Your task to perform on an android device: turn on sleep mode Image 0: 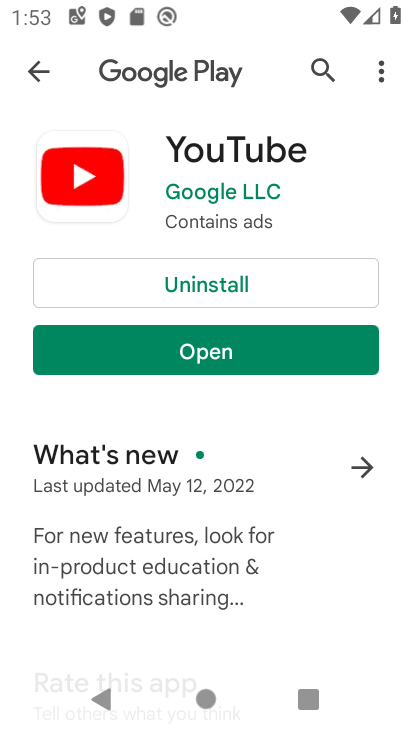
Step 0: press home button
Your task to perform on an android device: turn on sleep mode Image 1: 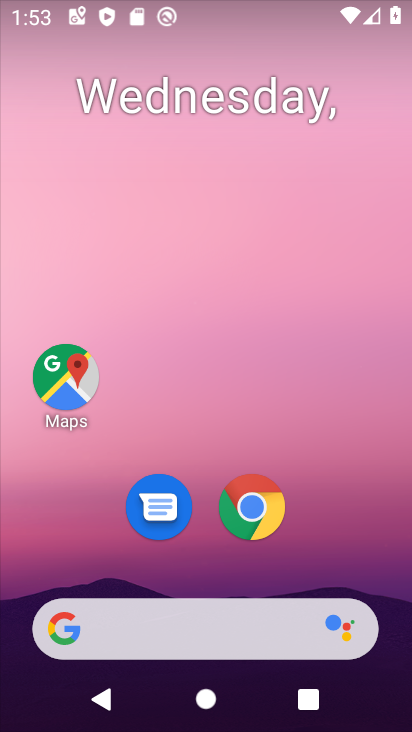
Step 1: drag from (404, 533) to (349, 193)
Your task to perform on an android device: turn on sleep mode Image 2: 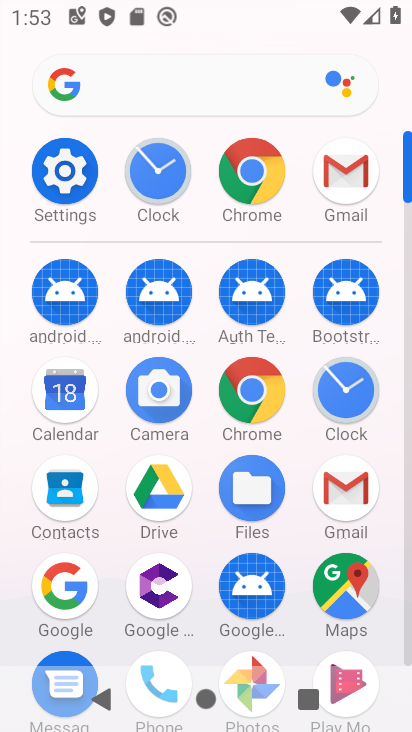
Step 2: click (73, 197)
Your task to perform on an android device: turn on sleep mode Image 3: 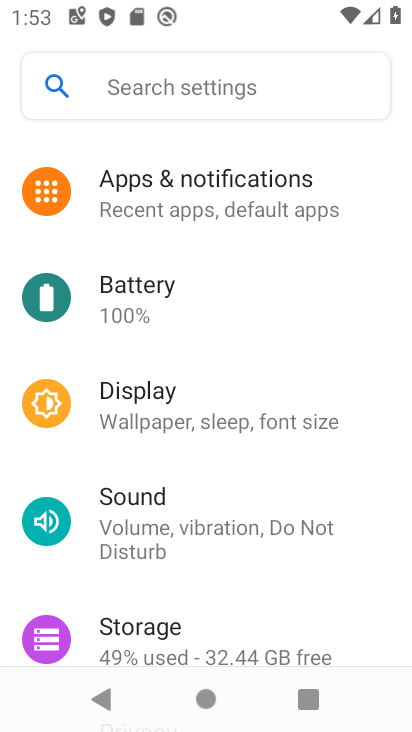
Step 3: click (211, 95)
Your task to perform on an android device: turn on sleep mode Image 4: 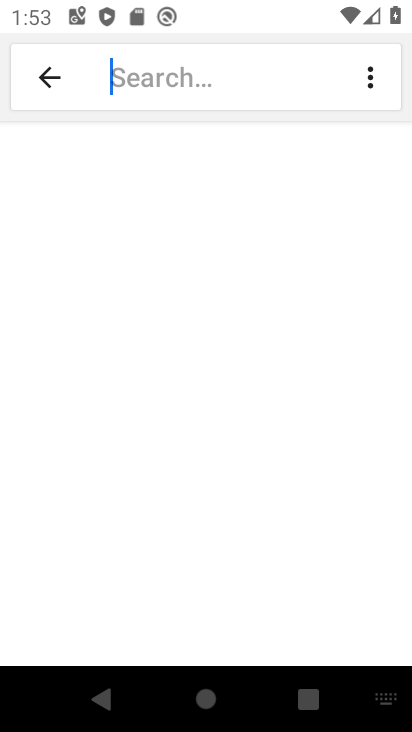
Step 4: type "sleep mode"
Your task to perform on an android device: turn on sleep mode Image 5: 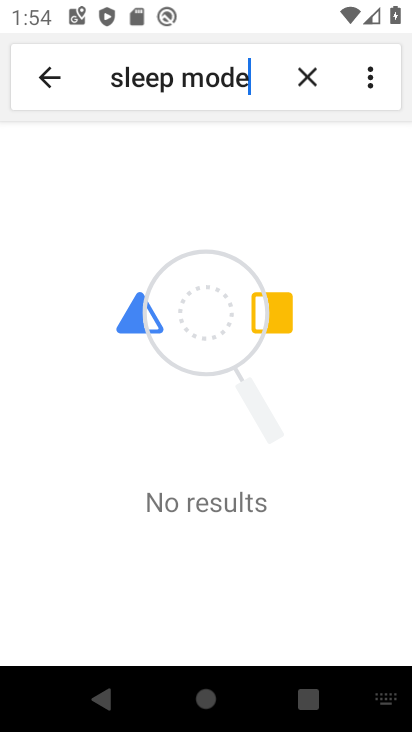
Step 5: task complete